Your task to perform on an android device: Is it going to rain today? Image 0: 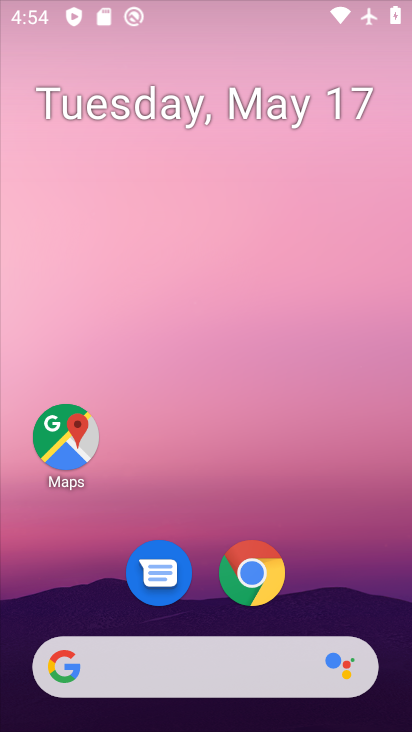
Step 0: drag from (373, 686) to (214, 220)
Your task to perform on an android device: Is it going to rain today? Image 1: 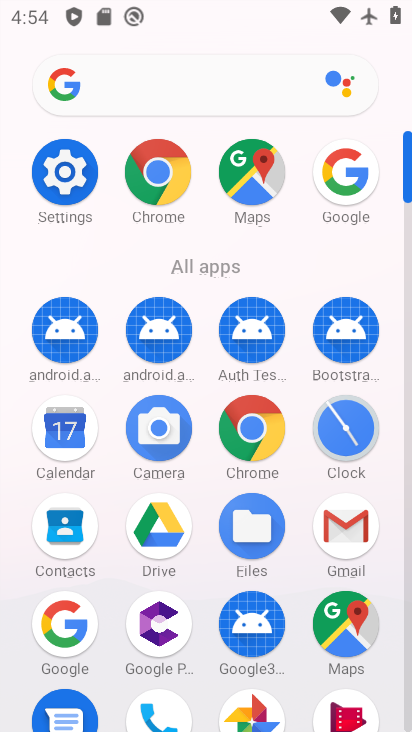
Step 1: press back button
Your task to perform on an android device: Is it going to rain today? Image 2: 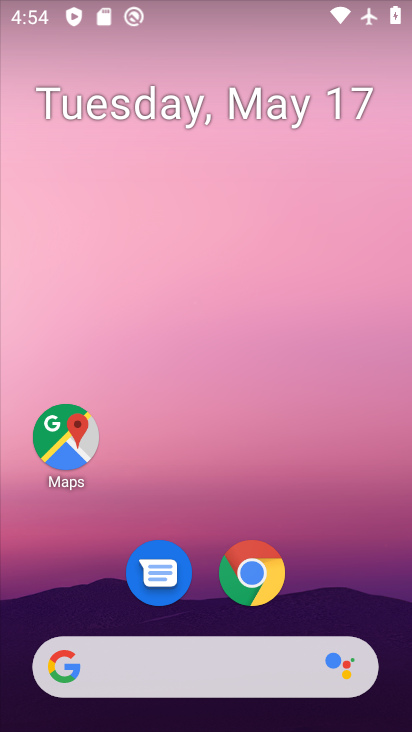
Step 2: drag from (277, 301) to (392, 401)
Your task to perform on an android device: Is it going to rain today? Image 3: 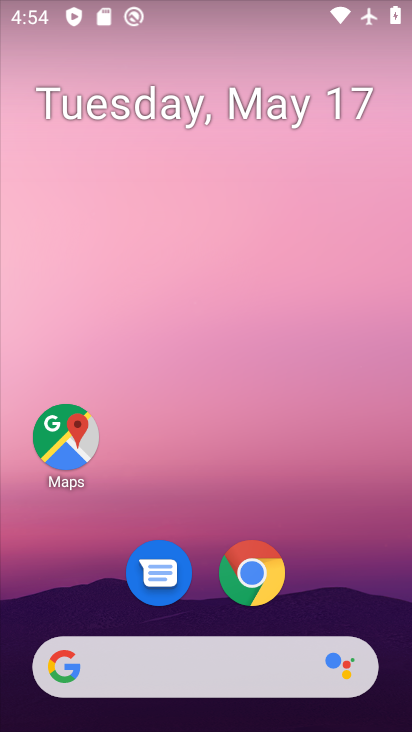
Step 3: drag from (0, 250) to (383, 457)
Your task to perform on an android device: Is it going to rain today? Image 4: 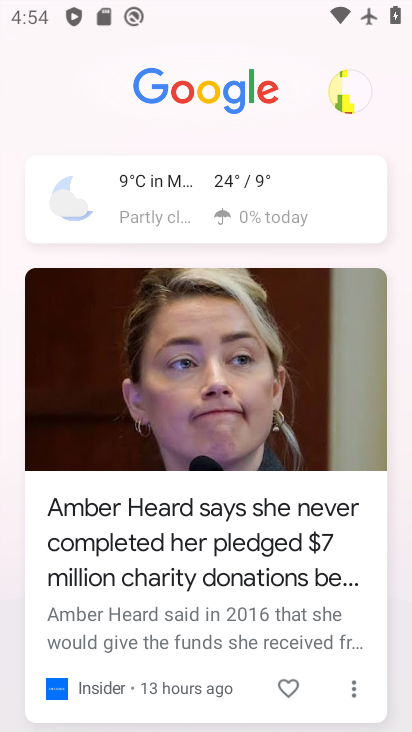
Step 4: click (182, 189)
Your task to perform on an android device: Is it going to rain today? Image 5: 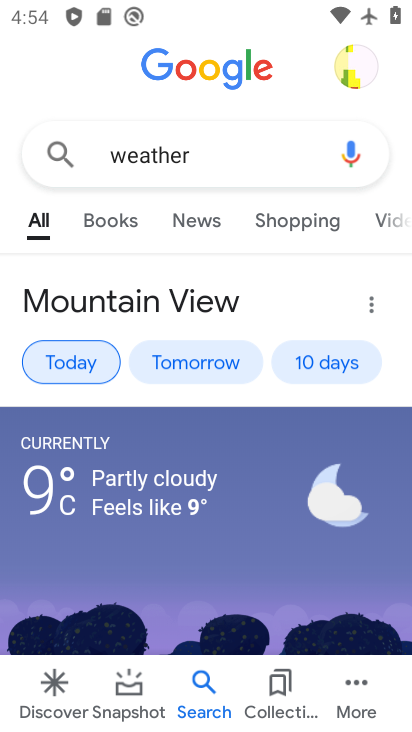
Step 5: click (197, 357)
Your task to perform on an android device: Is it going to rain today? Image 6: 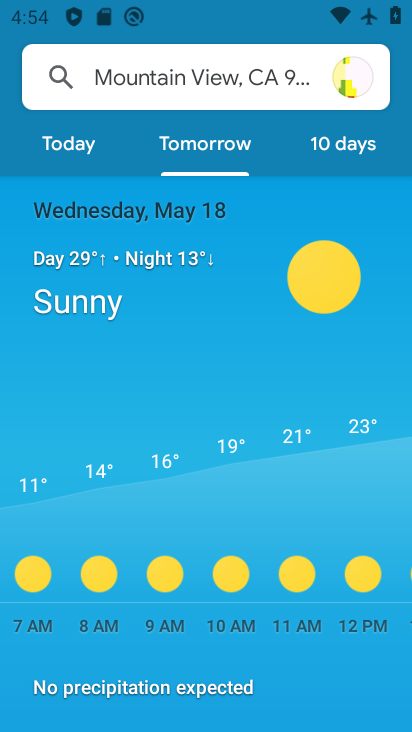
Step 6: click (45, 142)
Your task to perform on an android device: Is it going to rain today? Image 7: 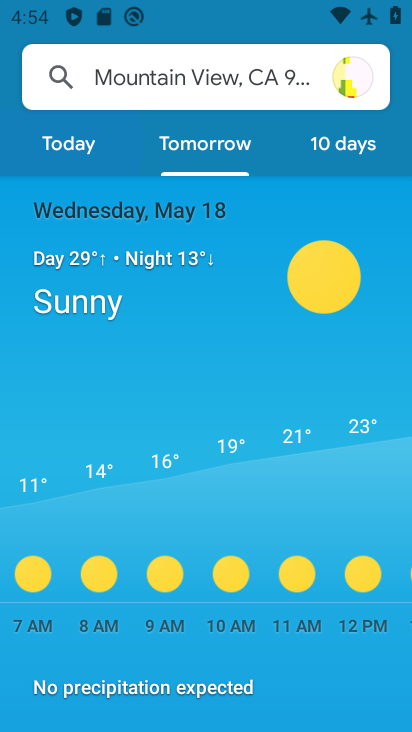
Step 7: click (45, 142)
Your task to perform on an android device: Is it going to rain today? Image 8: 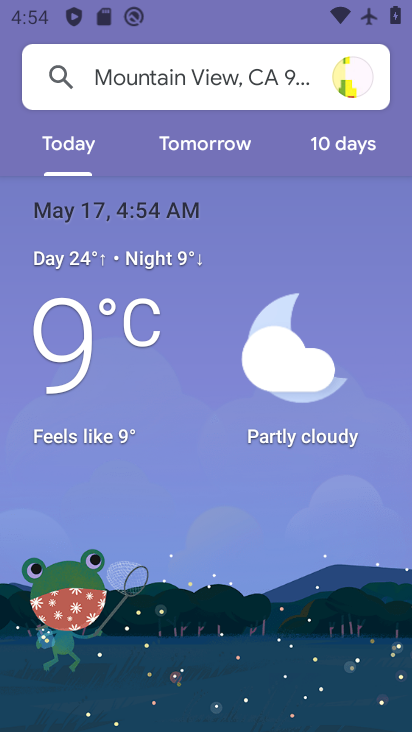
Step 8: task complete